Your task to perform on an android device: Open the phone app and click the voicemail tab. Image 0: 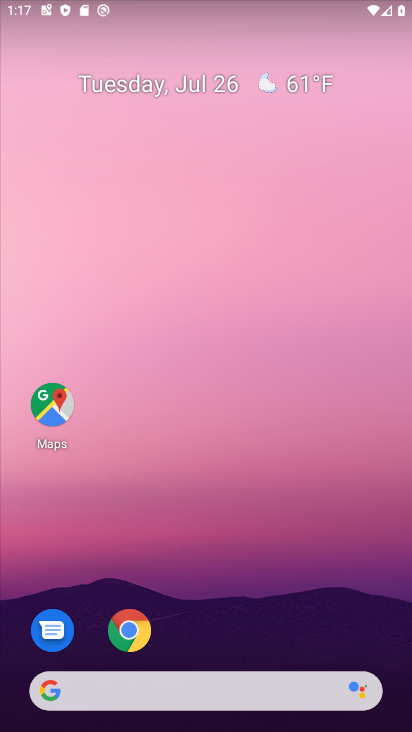
Step 0: drag from (219, 625) to (214, 52)
Your task to perform on an android device: Open the phone app and click the voicemail tab. Image 1: 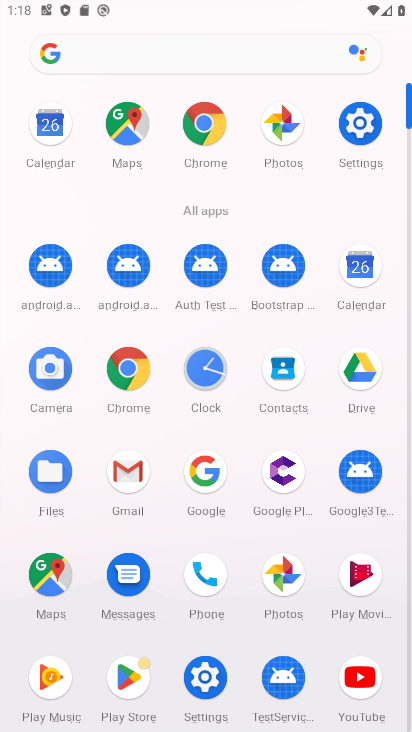
Step 1: click (206, 581)
Your task to perform on an android device: Open the phone app and click the voicemail tab. Image 2: 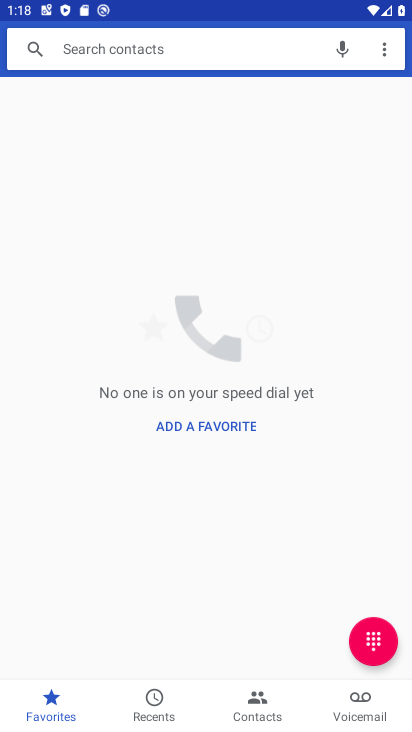
Step 2: click (364, 726)
Your task to perform on an android device: Open the phone app and click the voicemail tab. Image 3: 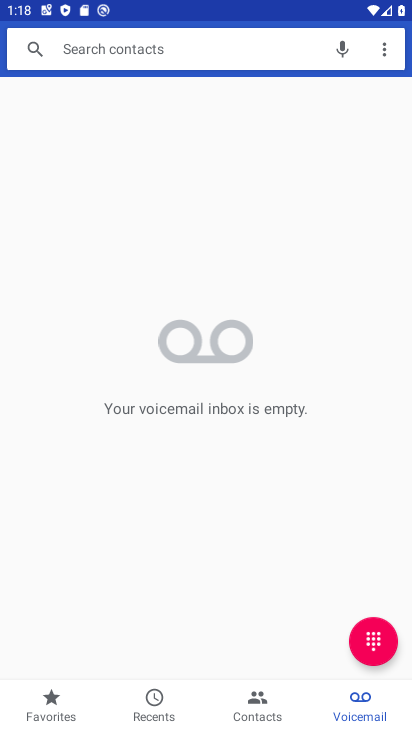
Step 3: task complete